Your task to perform on an android device: Go to Wikipedia Image 0: 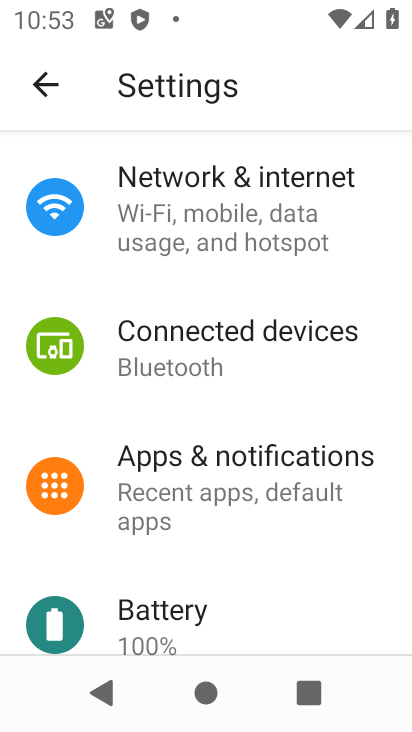
Step 0: press home button
Your task to perform on an android device: Go to Wikipedia Image 1: 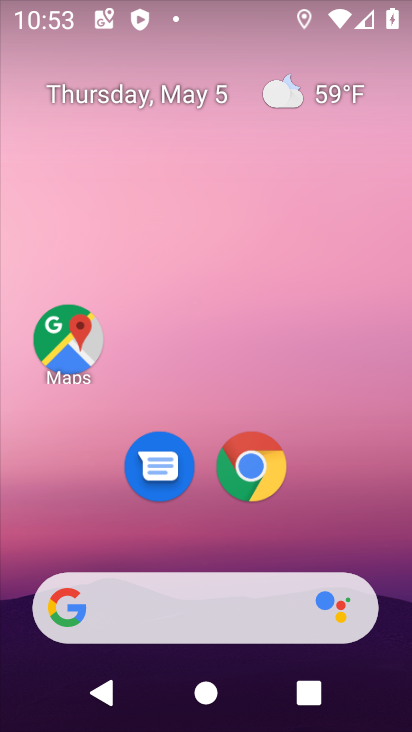
Step 1: drag from (349, 512) to (362, 65)
Your task to perform on an android device: Go to Wikipedia Image 2: 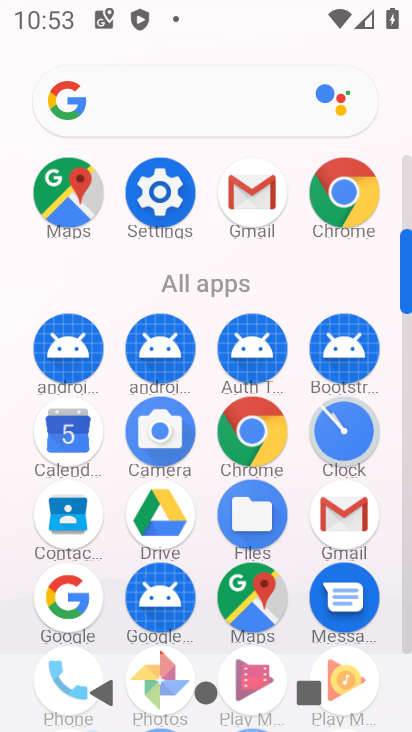
Step 2: click (334, 200)
Your task to perform on an android device: Go to Wikipedia Image 3: 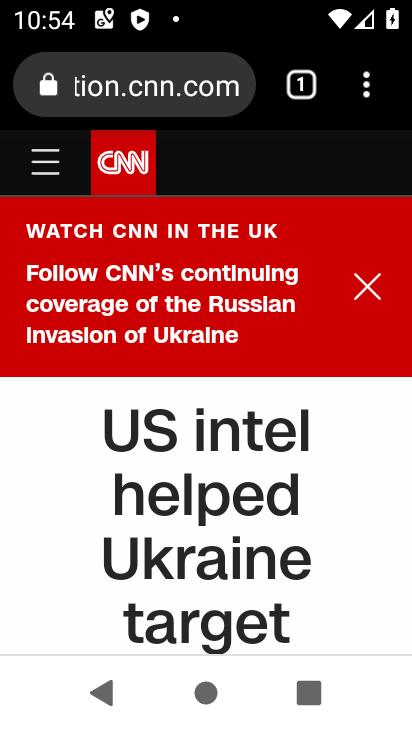
Step 3: click (367, 85)
Your task to perform on an android device: Go to Wikipedia Image 4: 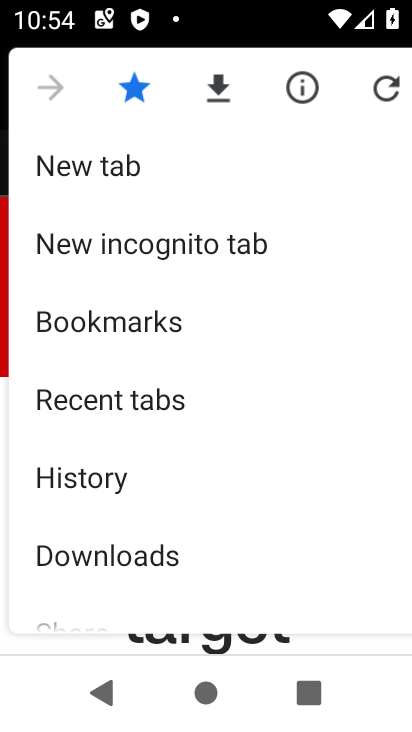
Step 4: click (162, 147)
Your task to perform on an android device: Go to Wikipedia Image 5: 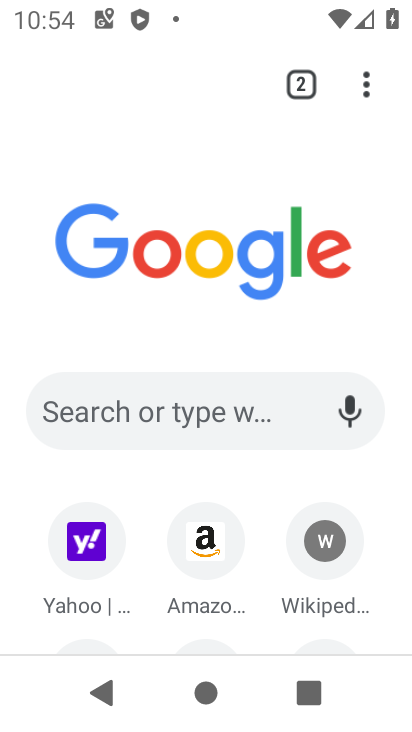
Step 5: click (323, 538)
Your task to perform on an android device: Go to Wikipedia Image 6: 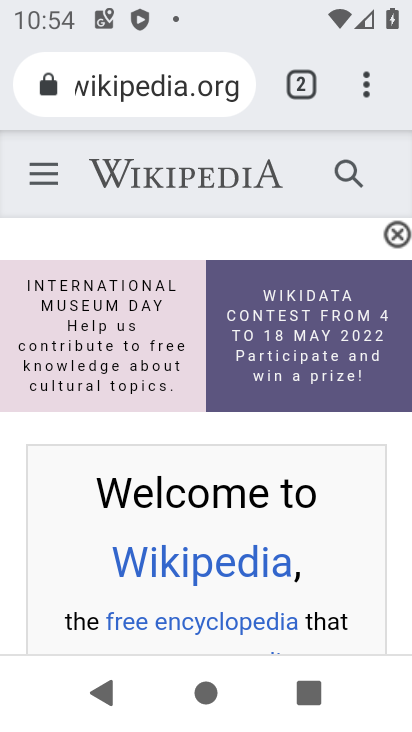
Step 6: task complete